Your task to perform on an android device: Go to network settings Image 0: 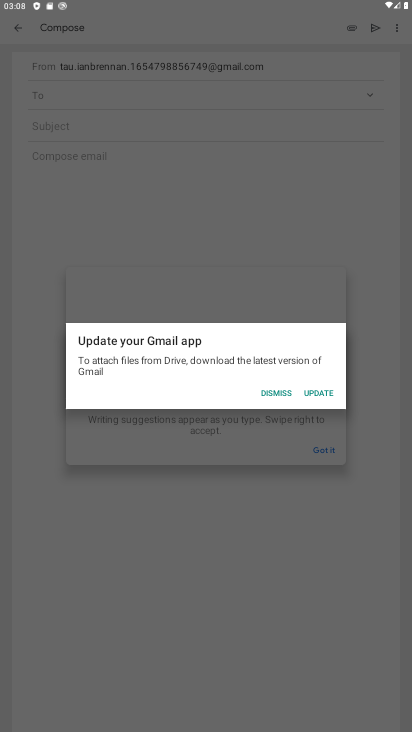
Step 0: press home button
Your task to perform on an android device: Go to network settings Image 1: 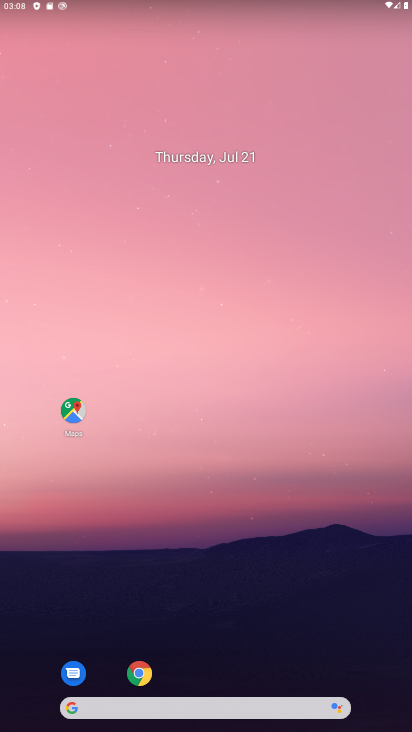
Step 1: drag from (258, 629) to (275, 40)
Your task to perform on an android device: Go to network settings Image 2: 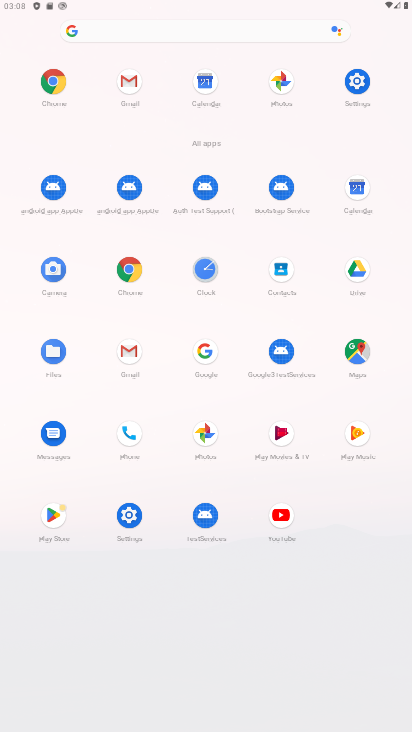
Step 2: click (361, 83)
Your task to perform on an android device: Go to network settings Image 3: 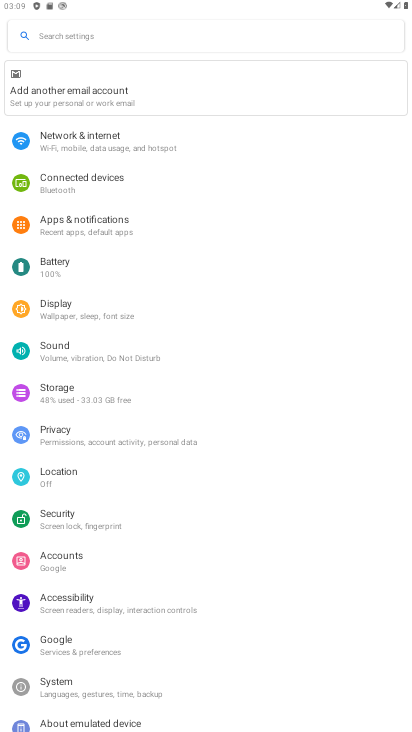
Step 3: click (136, 136)
Your task to perform on an android device: Go to network settings Image 4: 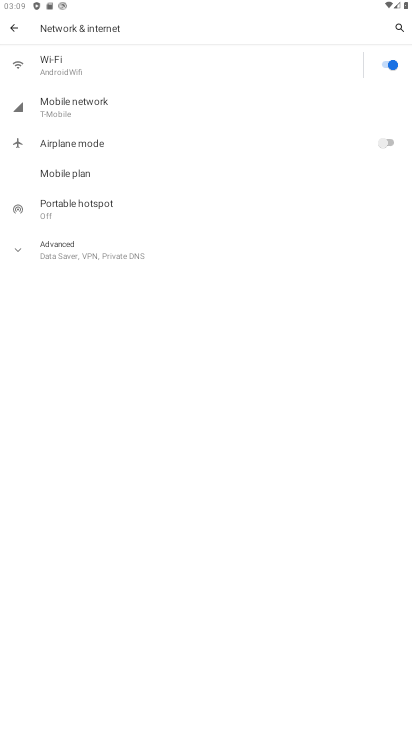
Step 4: task complete